Your task to perform on an android device: uninstall "PlayWell" Image 0: 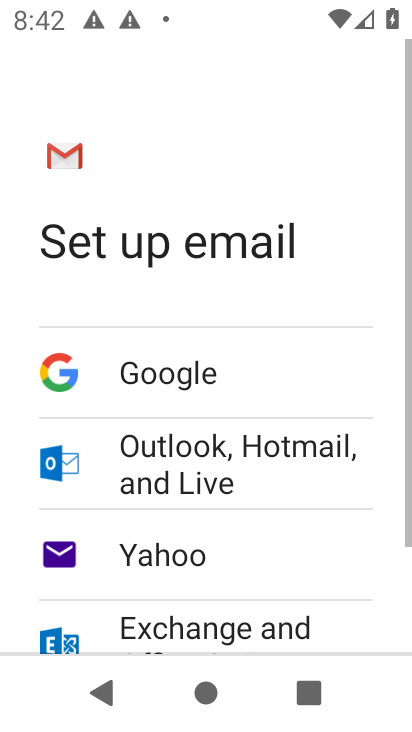
Step 0: press home button
Your task to perform on an android device: uninstall "PlayWell" Image 1: 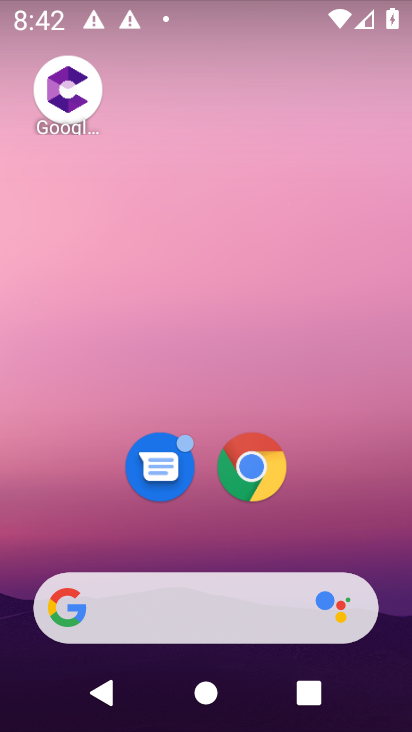
Step 1: drag from (195, 306) to (225, 0)
Your task to perform on an android device: uninstall "PlayWell" Image 2: 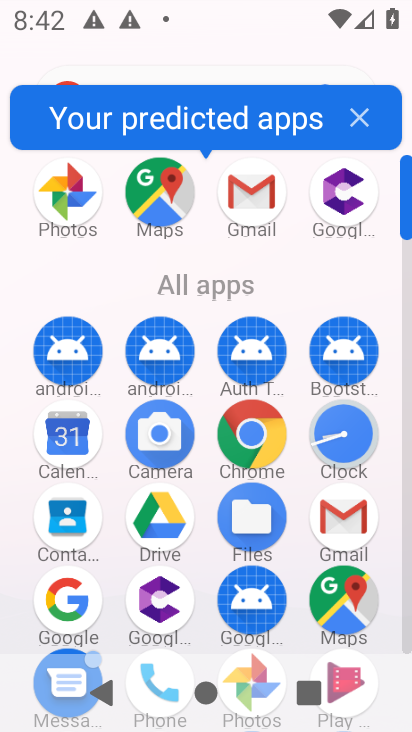
Step 2: drag from (112, 523) to (151, 64)
Your task to perform on an android device: uninstall "PlayWell" Image 3: 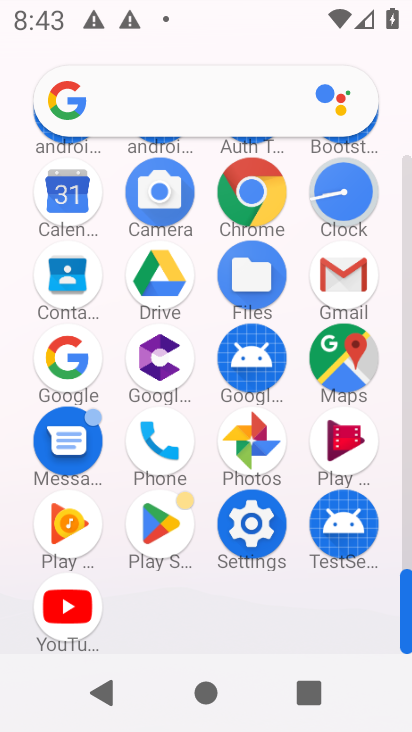
Step 3: click (148, 539)
Your task to perform on an android device: uninstall "PlayWell" Image 4: 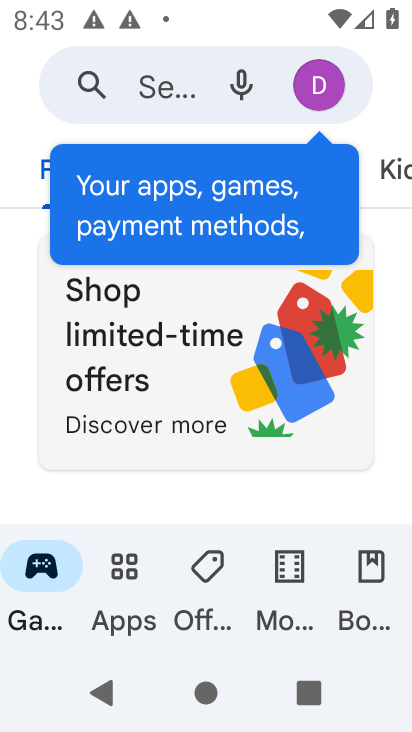
Step 4: click (93, 86)
Your task to perform on an android device: uninstall "PlayWell" Image 5: 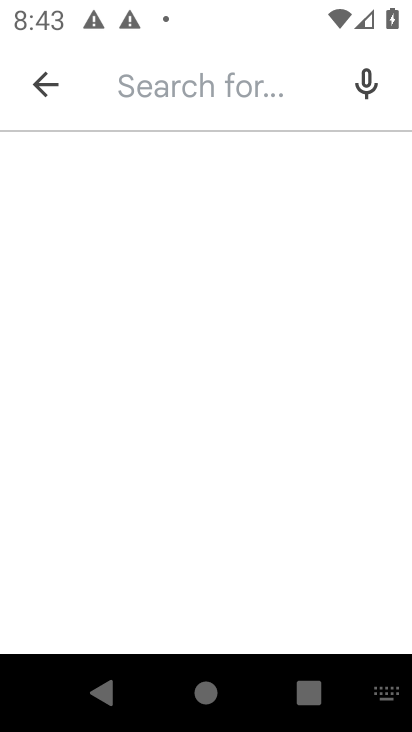
Step 5: type "playwell"
Your task to perform on an android device: uninstall "PlayWell" Image 6: 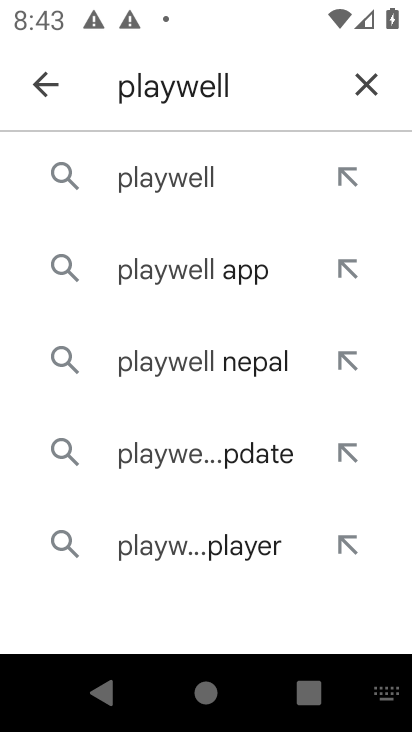
Step 6: click (198, 194)
Your task to perform on an android device: uninstall "PlayWell" Image 7: 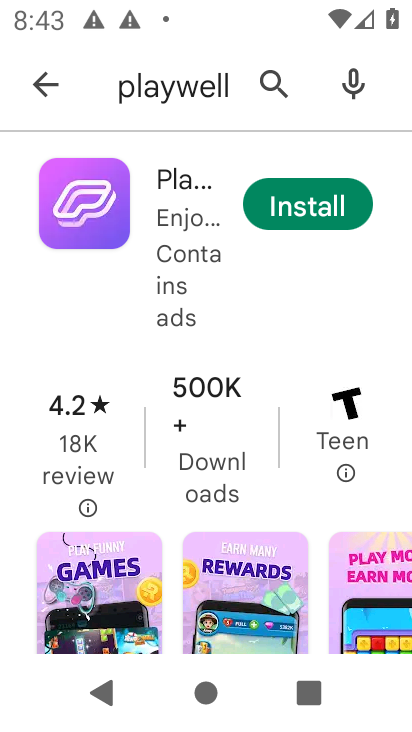
Step 7: task complete